Your task to perform on an android device: Open calendar and show me the second week of next month Image 0: 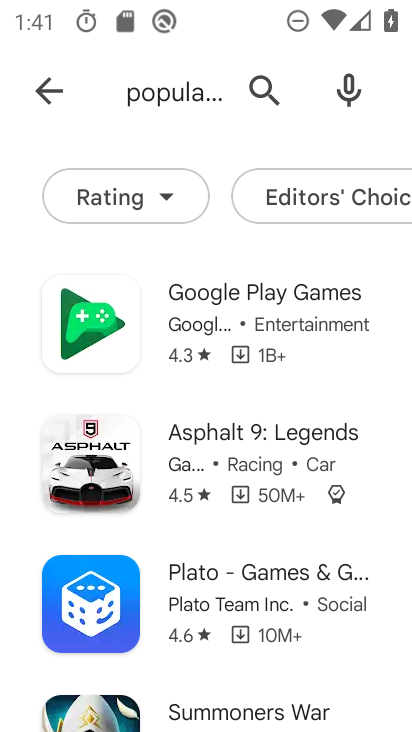
Step 0: press home button
Your task to perform on an android device: Open calendar and show me the second week of next month Image 1: 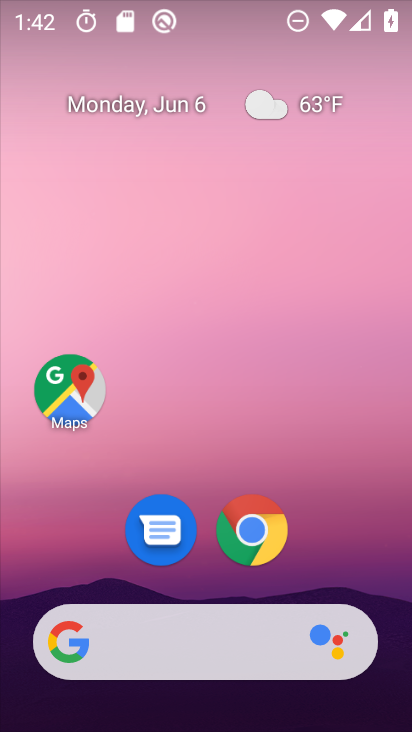
Step 1: drag from (337, 555) to (233, 24)
Your task to perform on an android device: Open calendar and show me the second week of next month Image 2: 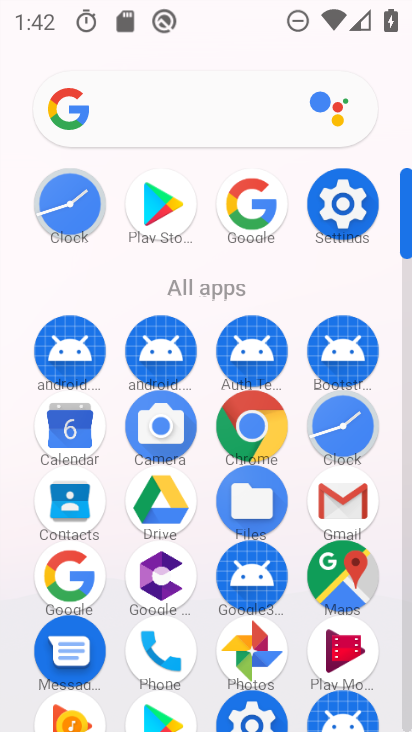
Step 2: click (72, 435)
Your task to perform on an android device: Open calendar and show me the second week of next month Image 3: 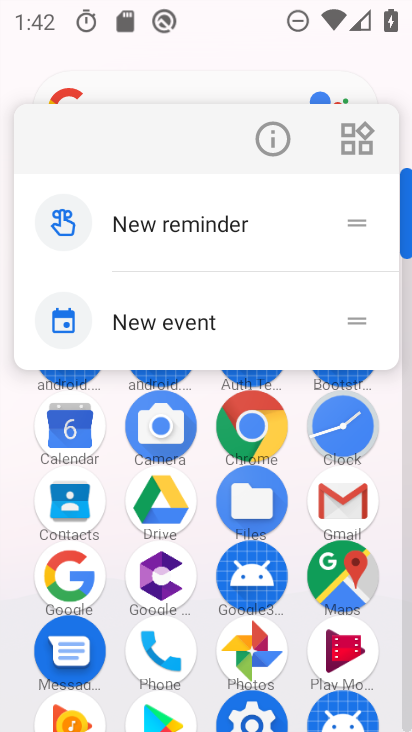
Step 3: click (72, 435)
Your task to perform on an android device: Open calendar and show me the second week of next month Image 4: 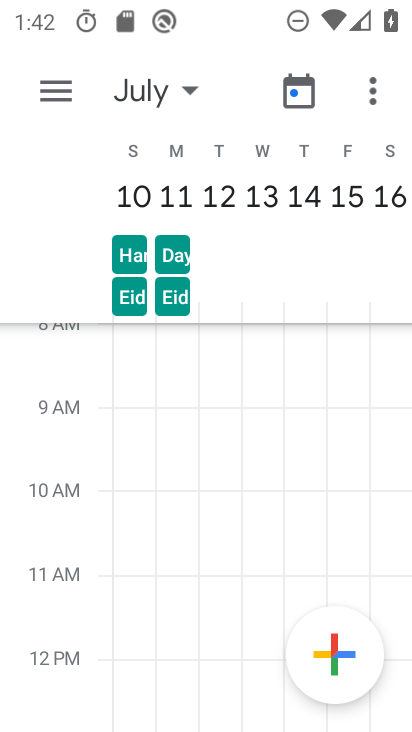
Step 4: click (300, 93)
Your task to perform on an android device: Open calendar and show me the second week of next month Image 5: 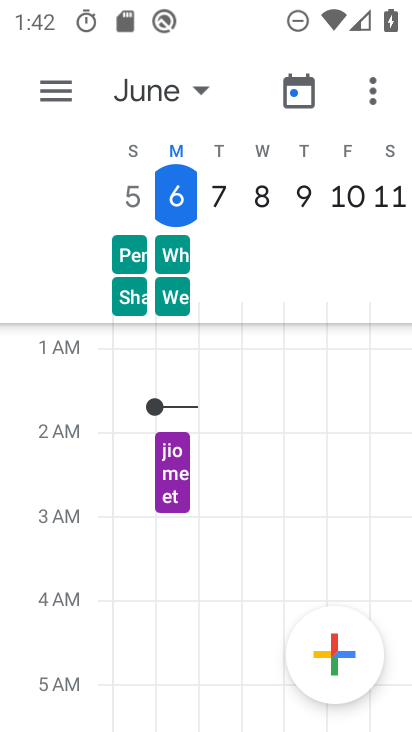
Step 5: click (205, 92)
Your task to perform on an android device: Open calendar and show me the second week of next month Image 6: 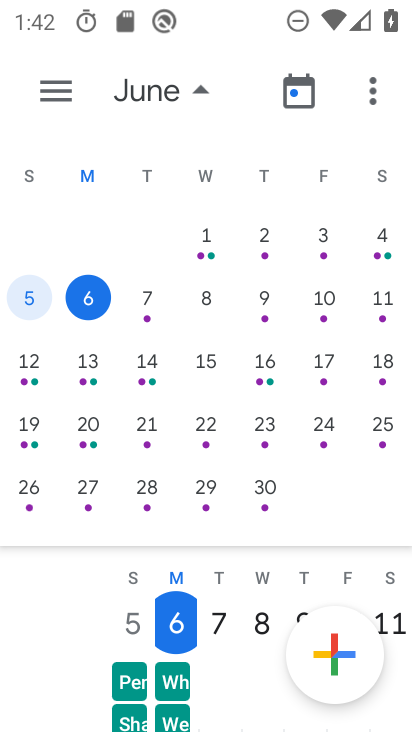
Step 6: drag from (383, 335) to (9, 374)
Your task to perform on an android device: Open calendar and show me the second week of next month Image 7: 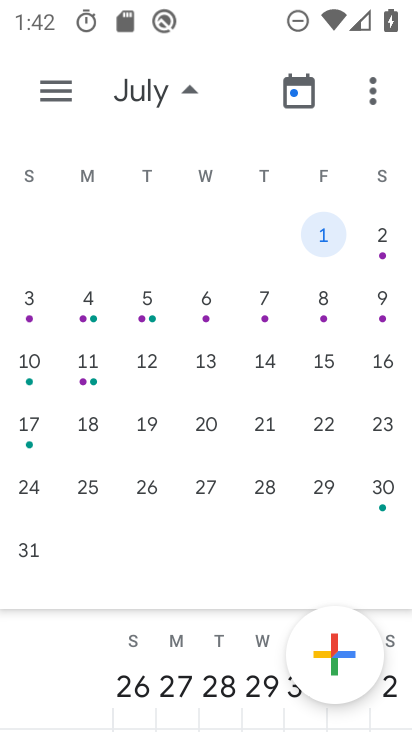
Step 7: click (94, 366)
Your task to perform on an android device: Open calendar and show me the second week of next month Image 8: 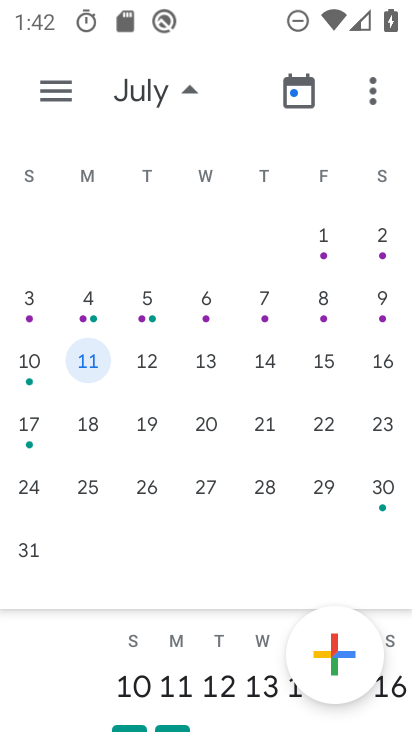
Step 8: click (55, 94)
Your task to perform on an android device: Open calendar and show me the second week of next month Image 9: 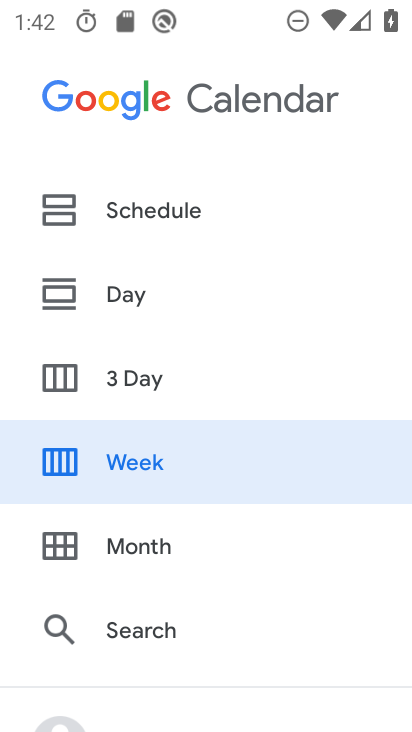
Step 9: click (124, 463)
Your task to perform on an android device: Open calendar and show me the second week of next month Image 10: 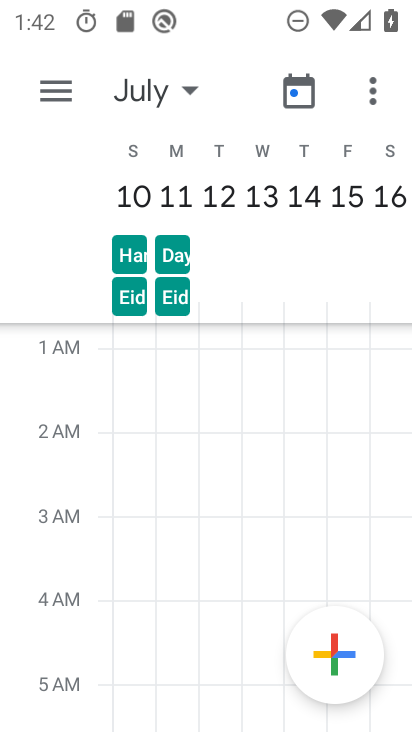
Step 10: task complete